Your task to perform on an android device: snooze an email in the gmail app Image 0: 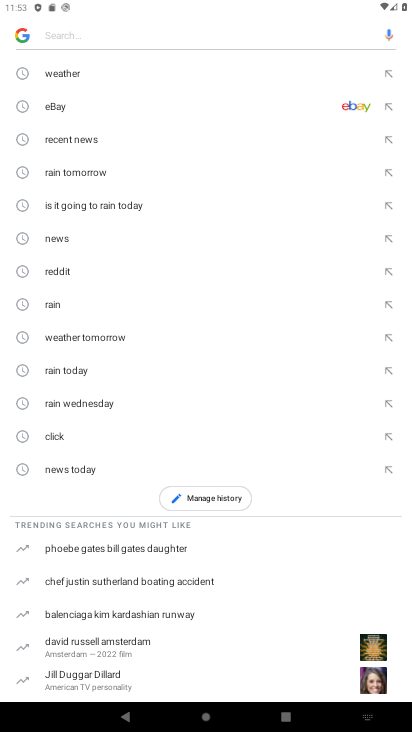
Step 0: press home button
Your task to perform on an android device: snooze an email in the gmail app Image 1: 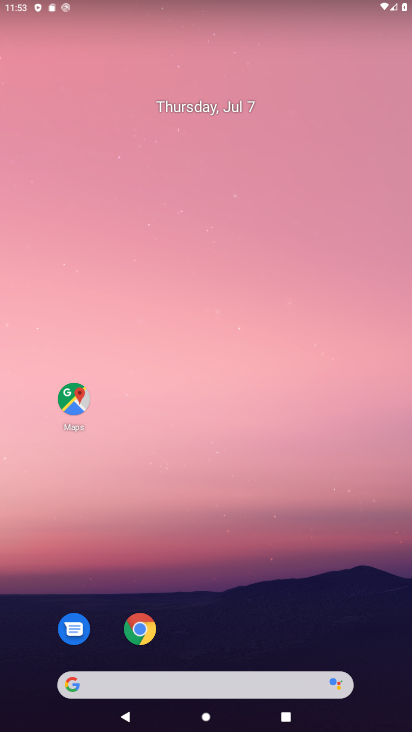
Step 1: drag from (254, 568) to (244, 224)
Your task to perform on an android device: snooze an email in the gmail app Image 2: 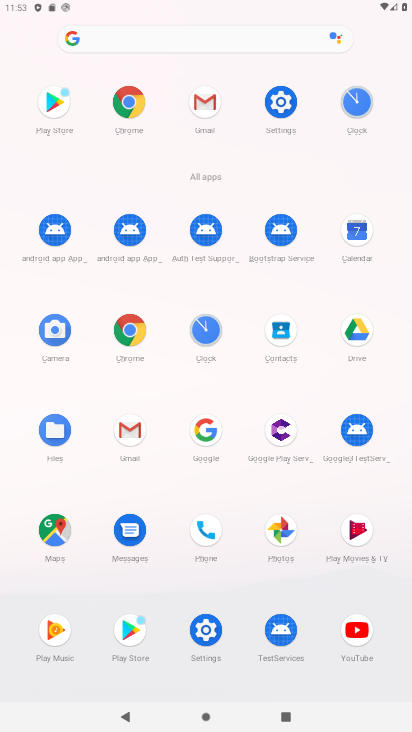
Step 2: click (208, 98)
Your task to perform on an android device: snooze an email in the gmail app Image 3: 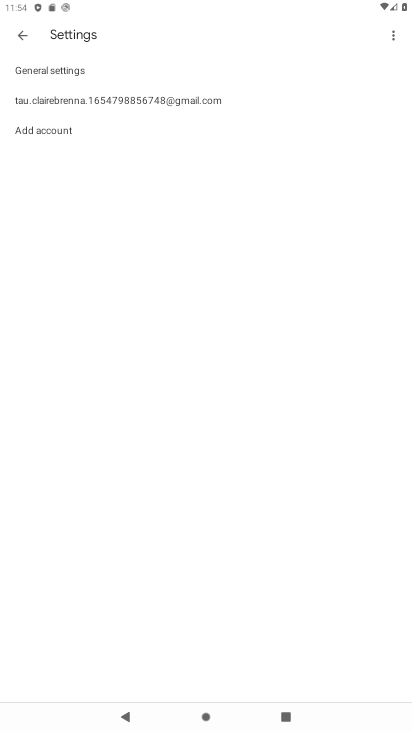
Step 3: click (19, 39)
Your task to perform on an android device: snooze an email in the gmail app Image 4: 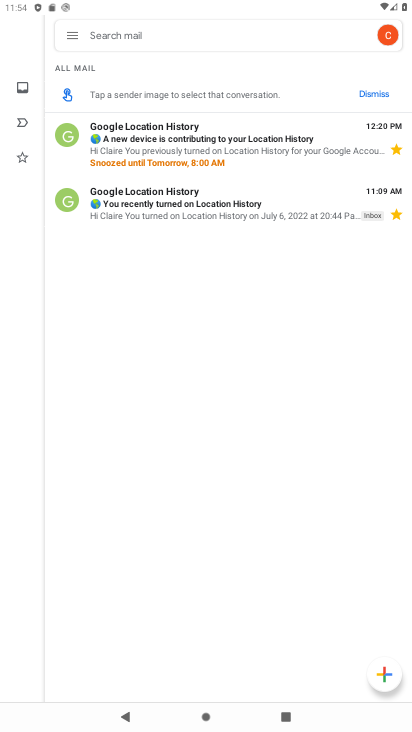
Step 4: click (296, 197)
Your task to perform on an android device: snooze an email in the gmail app Image 5: 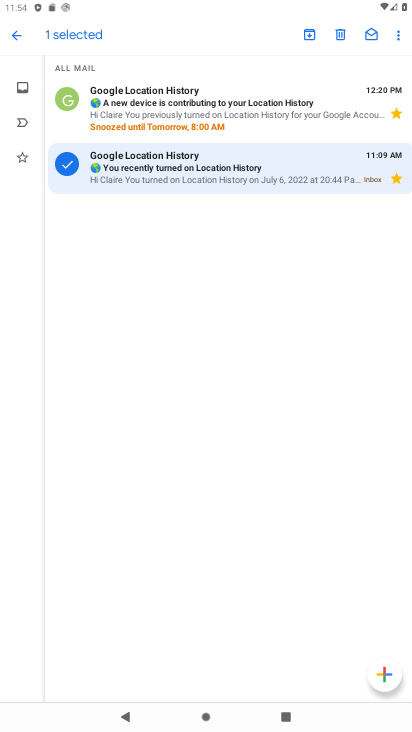
Step 5: click (401, 43)
Your task to perform on an android device: snooze an email in the gmail app Image 6: 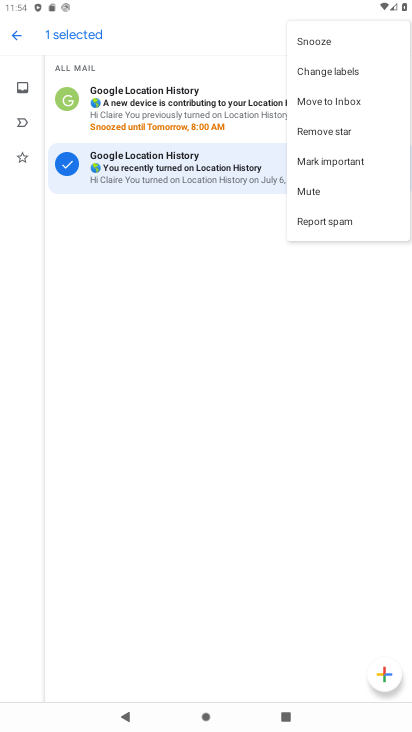
Step 6: click (337, 42)
Your task to perform on an android device: snooze an email in the gmail app Image 7: 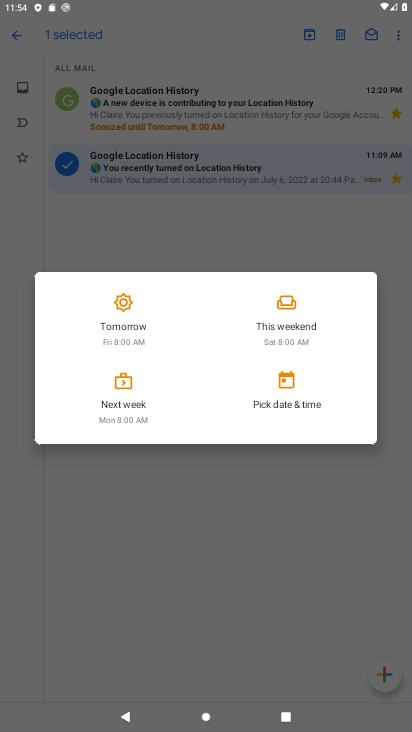
Step 7: click (104, 375)
Your task to perform on an android device: snooze an email in the gmail app Image 8: 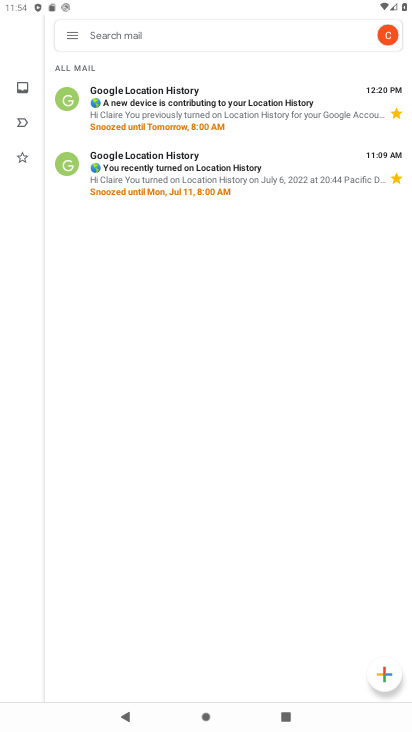
Step 8: task complete